Your task to perform on an android device: Check the weather Image 0: 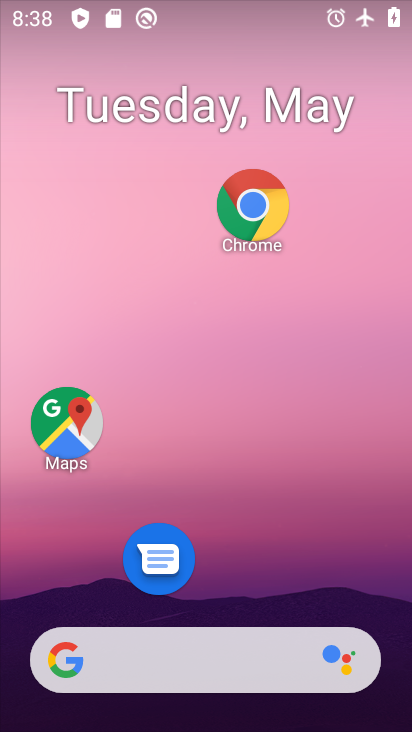
Step 0: drag from (232, 590) to (218, 159)
Your task to perform on an android device: Check the weather Image 1: 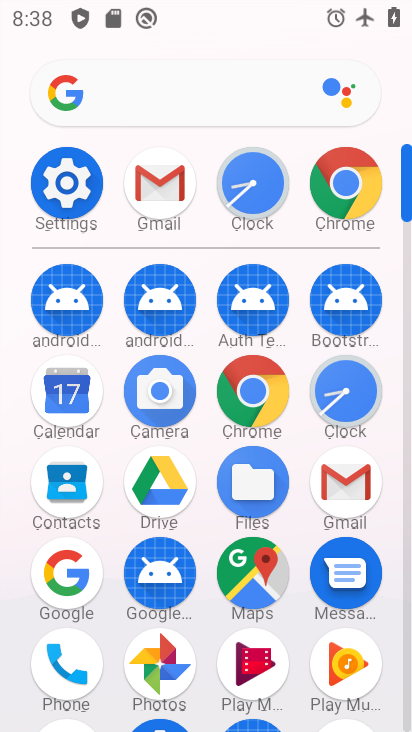
Step 1: click (64, 590)
Your task to perform on an android device: Check the weather Image 2: 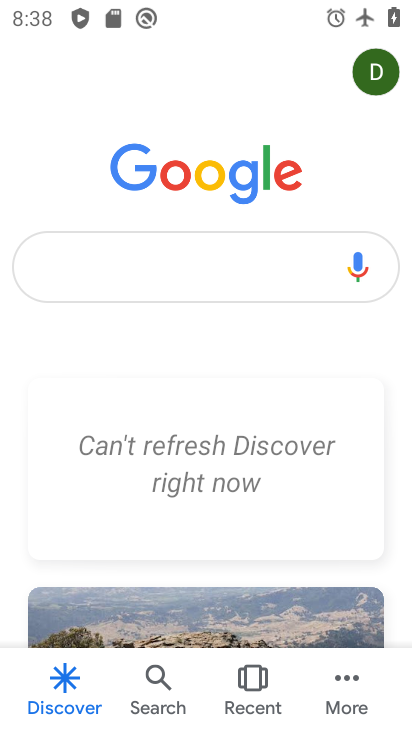
Step 2: click (219, 263)
Your task to perform on an android device: Check the weather Image 3: 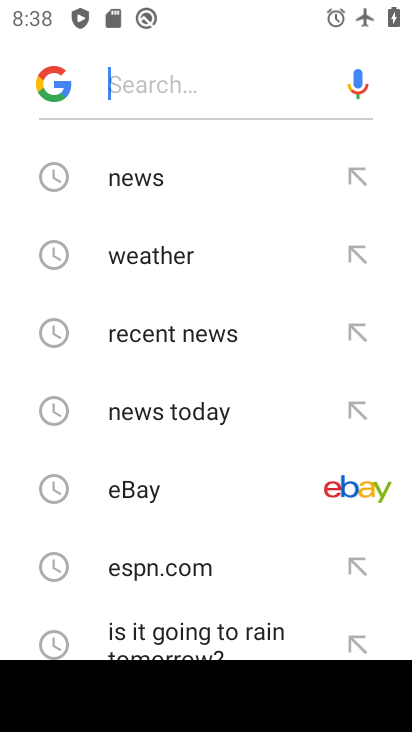
Step 3: click (185, 260)
Your task to perform on an android device: Check the weather Image 4: 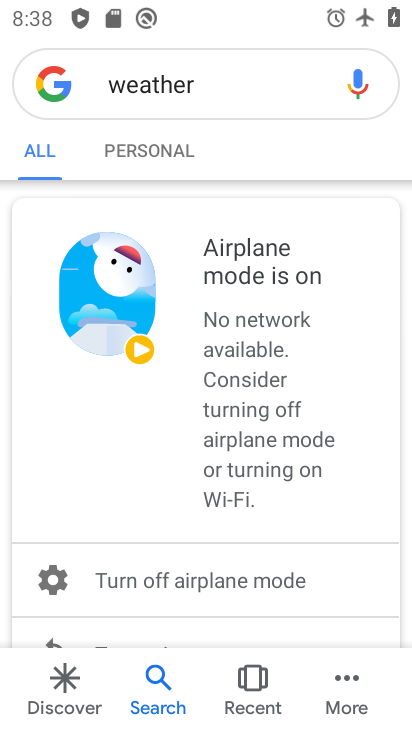
Step 4: task complete